Your task to perform on an android device: Open the calendar app, open the side menu, and click the "Day" option Image 0: 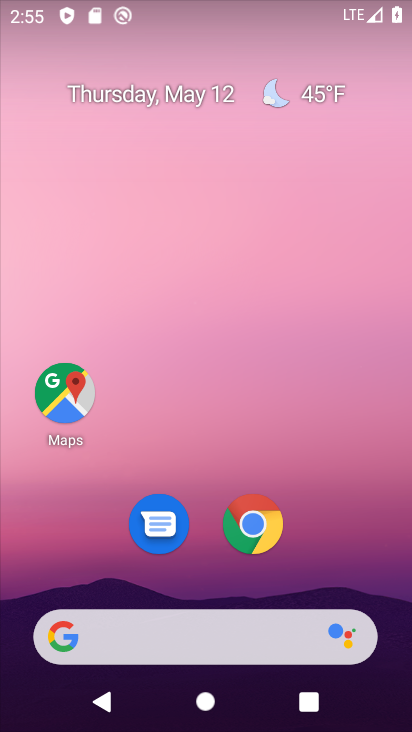
Step 0: drag from (330, 454) to (331, 55)
Your task to perform on an android device: Open the calendar app, open the side menu, and click the "Day" option Image 1: 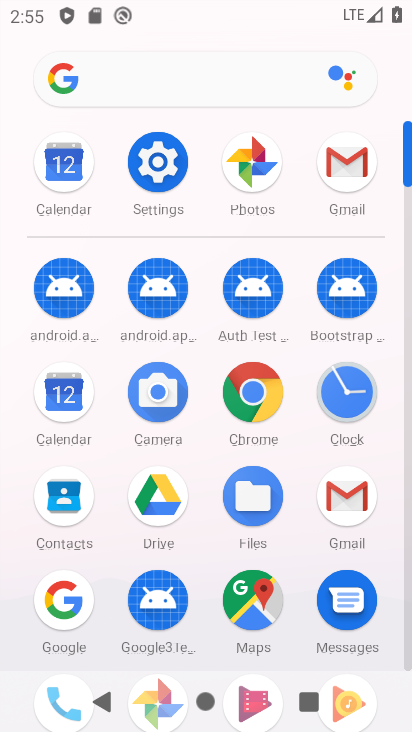
Step 1: click (71, 164)
Your task to perform on an android device: Open the calendar app, open the side menu, and click the "Day" option Image 2: 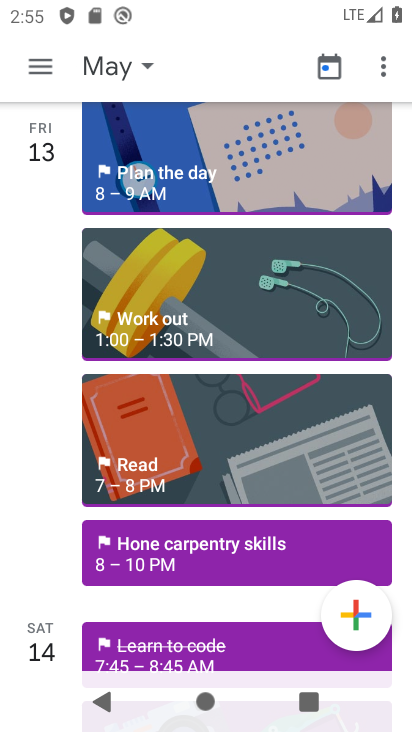
Step 2: click (32, 55)
Your task to perform on an android device: Open the calendar app, open the side menu, and click the "Day" option Image 3: 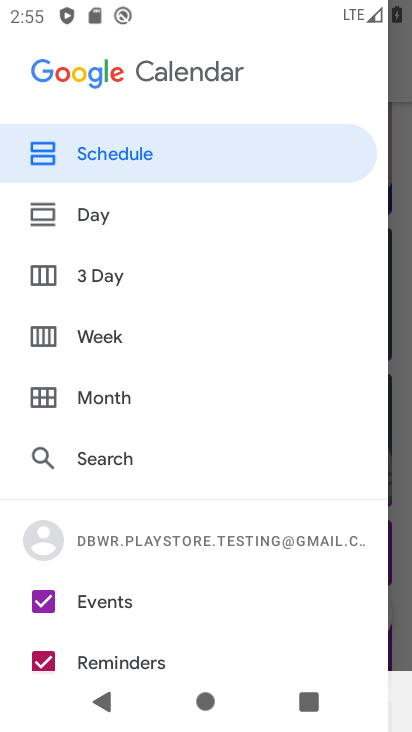
Step 3: click (93, 216)
Your task to perform on an android device: Open the calendar app, open the side menu, and click the "Day" option Image 4: 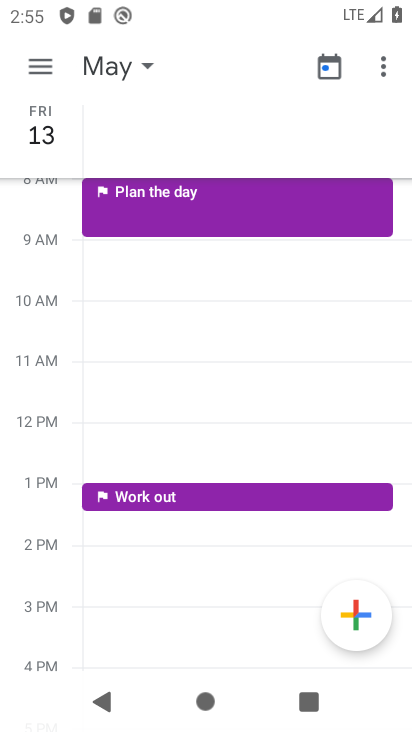
Step 4: task complete